Your task to perform on an android device: turn on airplane mode Image 0: 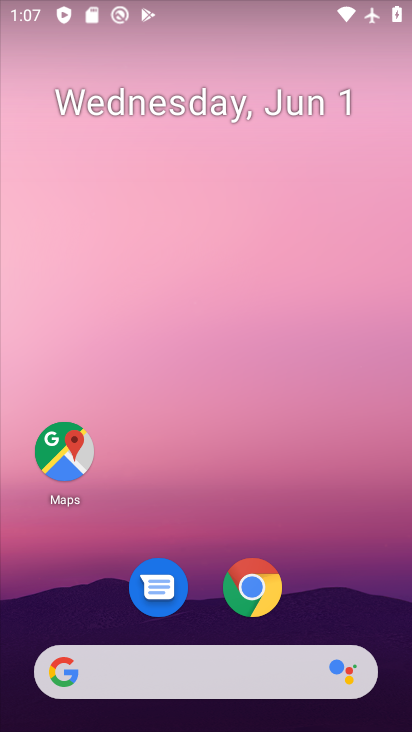
Step 0: drag from (209, 450) to (156, 83)
Your task to perform on an android device: turn on airplane mode Image 1: 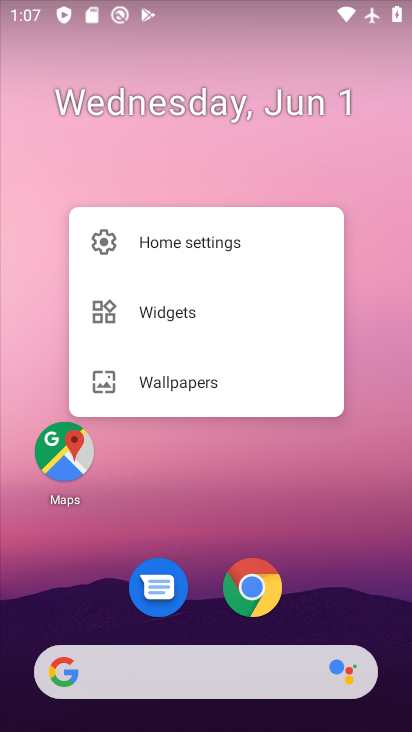
Step 1: click (218, 501)
Your task to perform on an android device: turn on airplane mode Image 2: 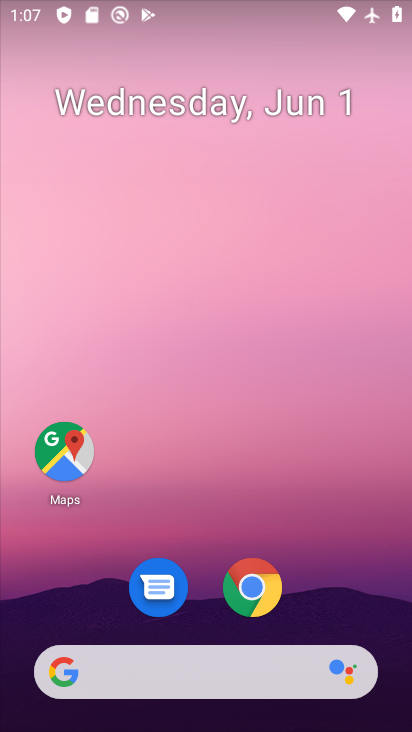
Step 2: drag from (218, 501) to (162, 80)
Your task to perform on an android device: turn on airplane mode Image 3: 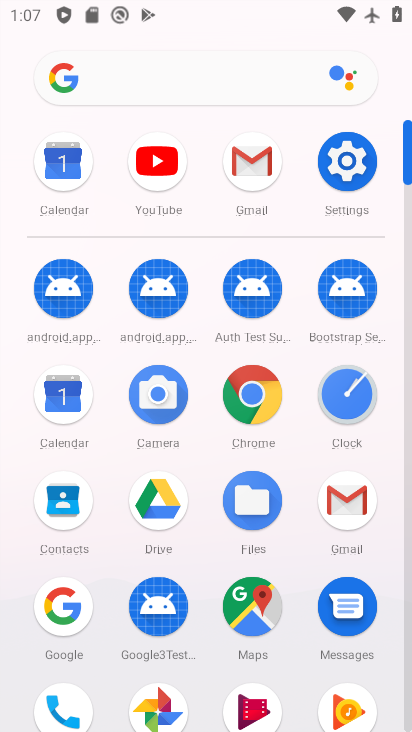
Step 3: click (339, 160)
Your task to perform on an android device: turn on airplane mode Image 4: 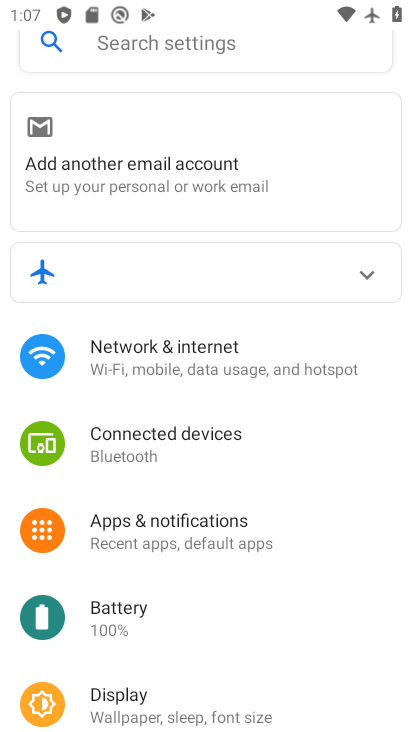
Step 4: click (151, 365)
Your task to perform on an android device: turn on airplane mode Image 5: 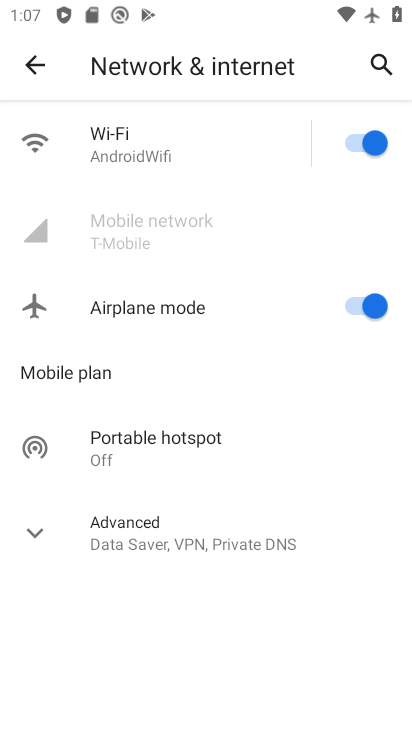
Step 5: task complete